Your task to perform on an android device: uninstall "Move to iOS" Image 0: 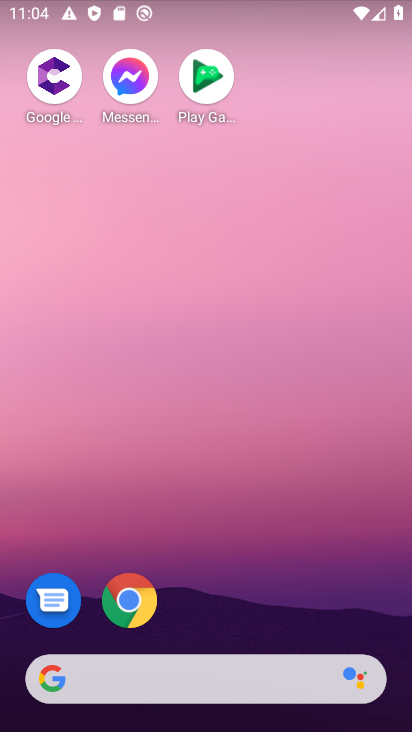
Step 0: click (226, 730)
Your task to perform on an android device: uninstall "Move to iOS" Image 1: 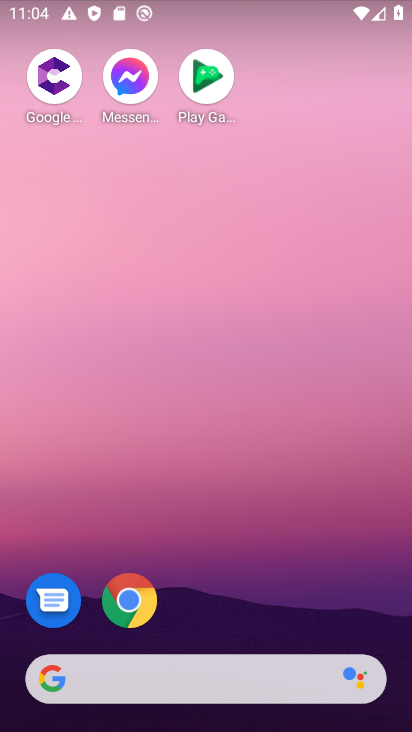
Step 1: drag from (162, 698) to (220, 73)
Your task to perform on an android device: uninstall "Move to iOS" Image 2: 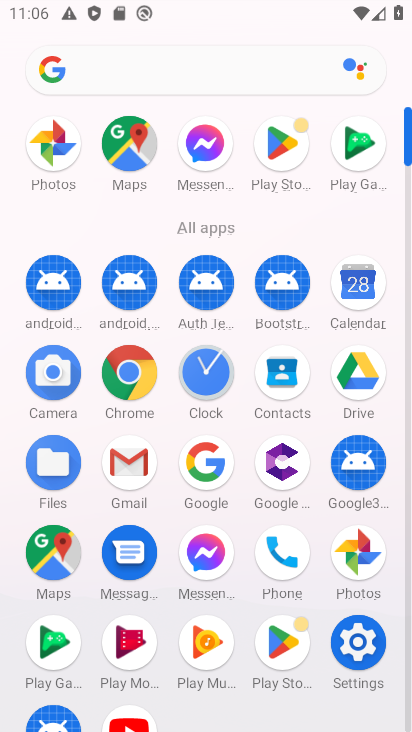
Step 2: click (273, 146)
Your task to perform on an android device: uninstall "Move to iOS" Image 3: 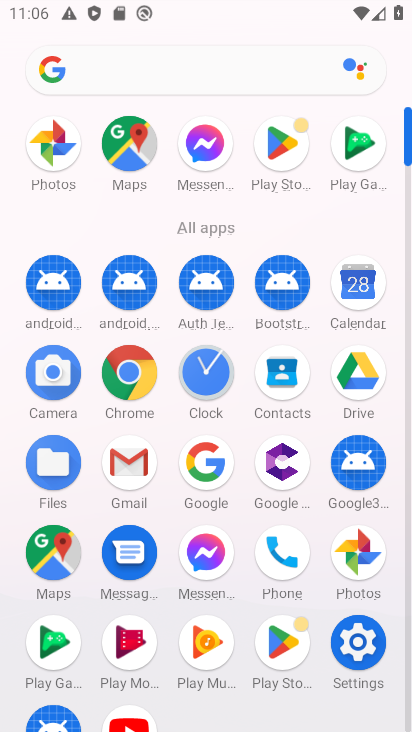
Step 3: click (273, 146)
Your task to perform on an android device: uninstall "Move to iOS" Image 4: 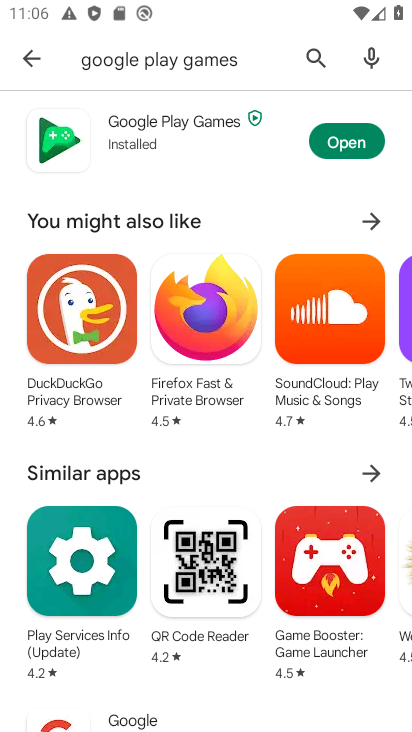
Step 4: click (317, 51)
Your task to perform on an android device: uninstall "Move to iOS" Image 5: 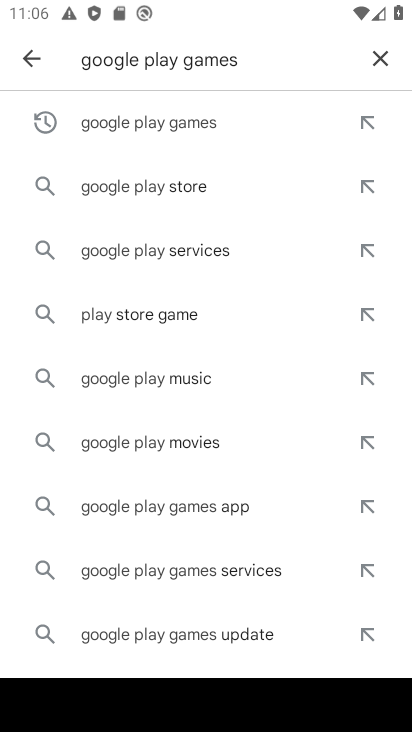
Step 5: type "Move to iOS"
Your task to perform on an android device: uninstall "Move to iOS" Image 6: 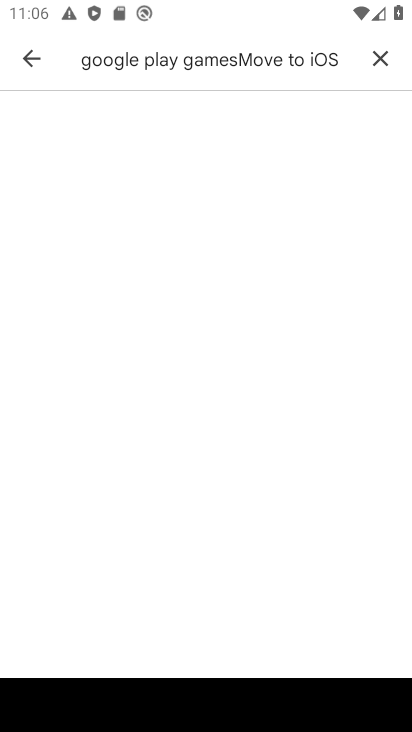
Step 6: click (380, 56)
Your task to perform on an android device: uninstall "Move to iOS" Image 7: 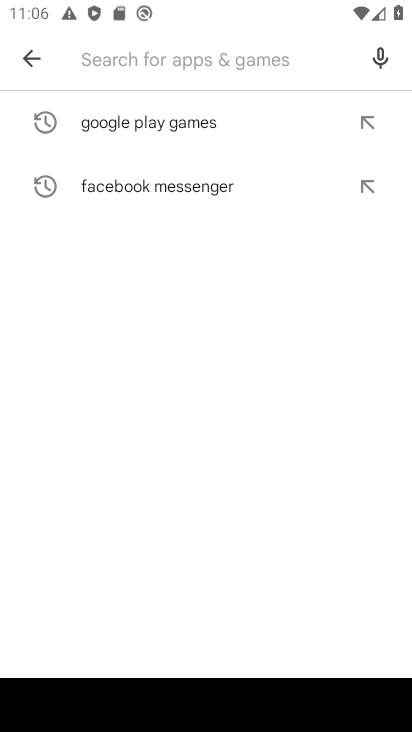
Step 7: type "Move to iOS"
Your task to perform on an android device: uninstall "Move to iOS" Image 8: 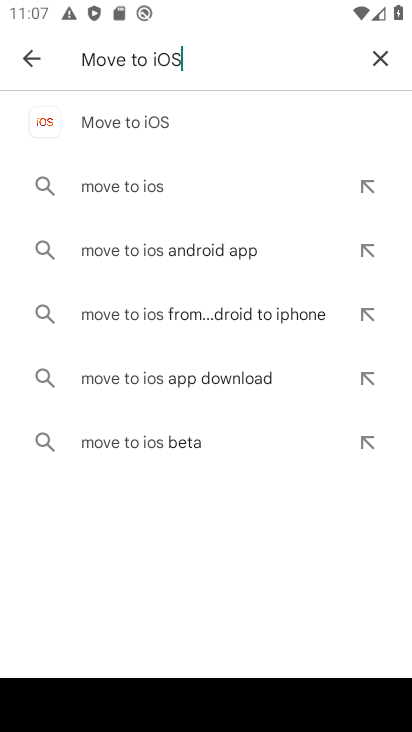
Step 8: click (187, 113)
Your task to perform on an android device: uninstall "Move to iOS" Image 9: 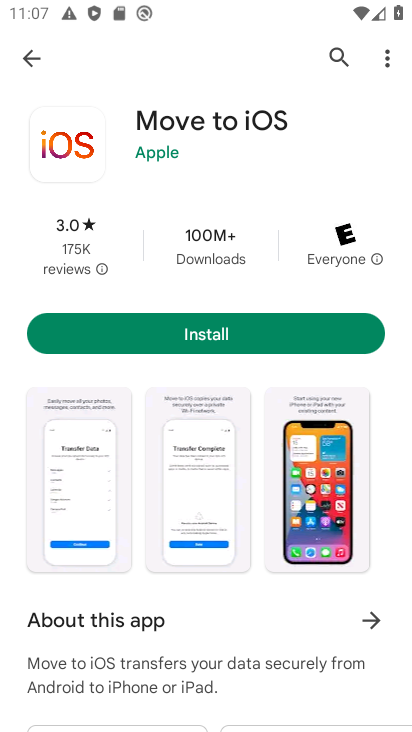
Step 9: task complete